Your task to perform on an android device: Go to network settings Image 0: 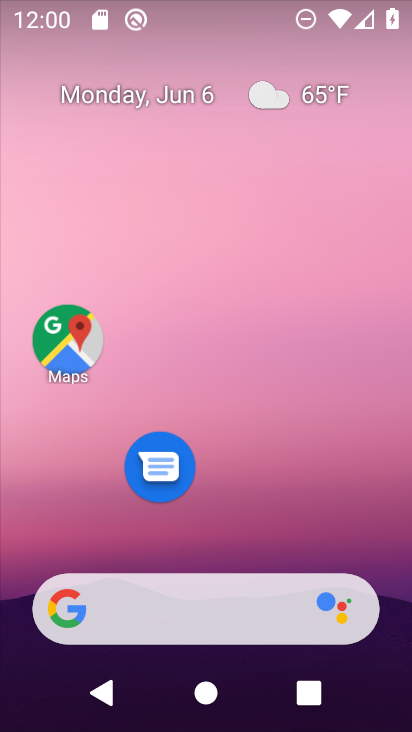
Step 0: press home button
Your task to perform on an android device: Go to network settings Image 1: 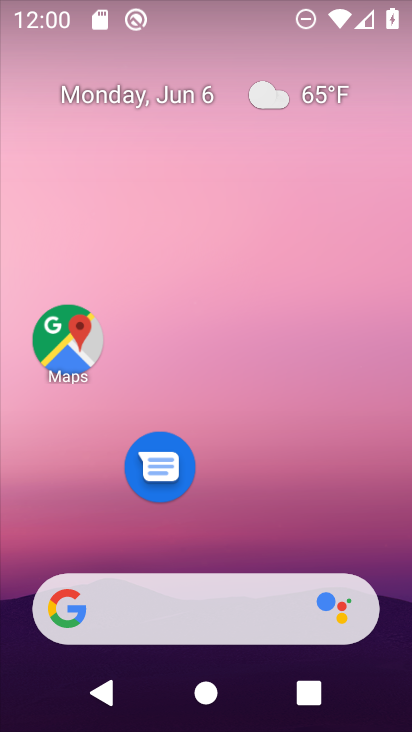
Step 1: drag from (379, 560) to (360, 49)
Your task to perform on an android device: Go to network settings Image 2: 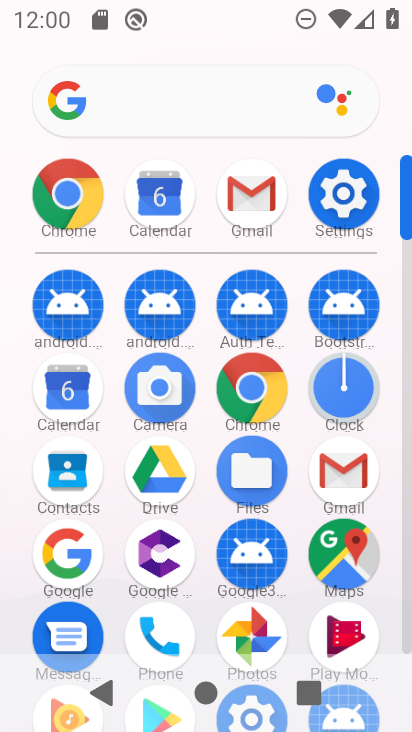
Step 2: drag from (184, 513) to (194, 367)
Your task to perform on an android device: Go to network settings Image 3: 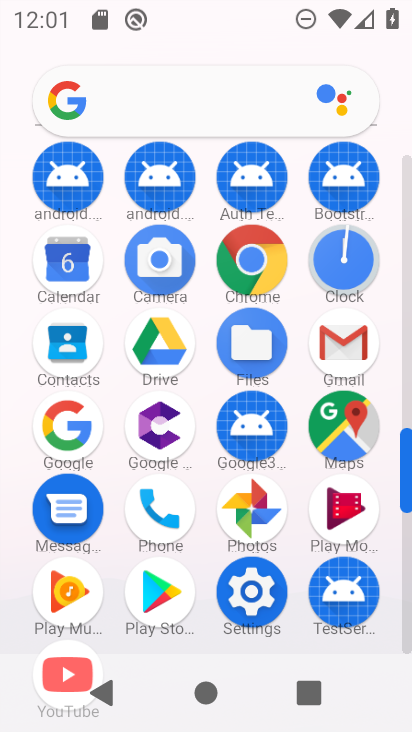
Step 3: click (250, 590)
Your task to perform on an android device: Go to network settings Image 4: 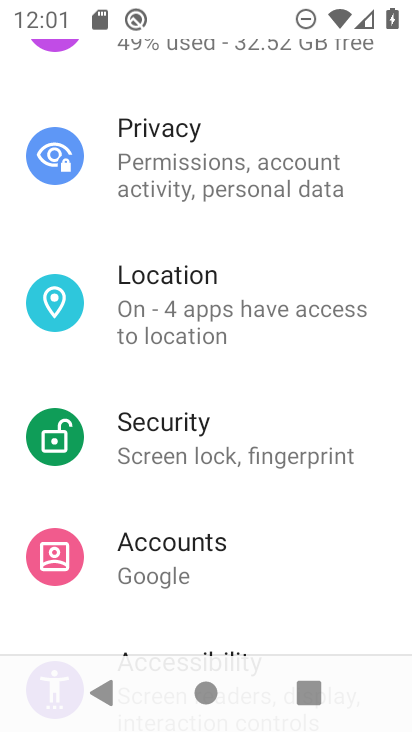
Step 4: drag from (311, 136) to (255, 718)
Your task to perform on an android device: Go to network settings Image 5: 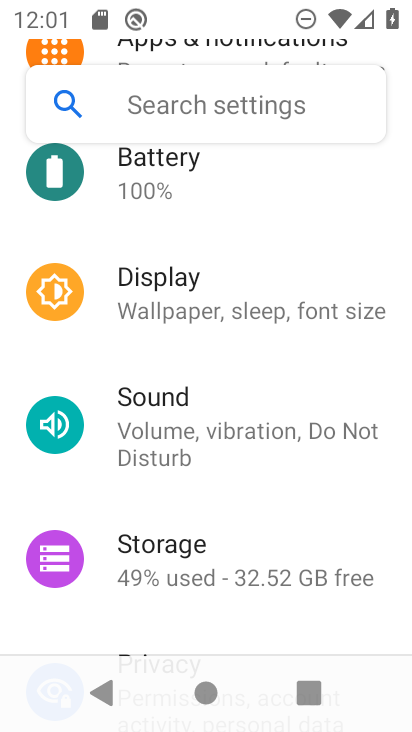
Step 5: drag from (371, 194) to (306, 530)
Your task to perform on an android device: Go to network settings Image 6: 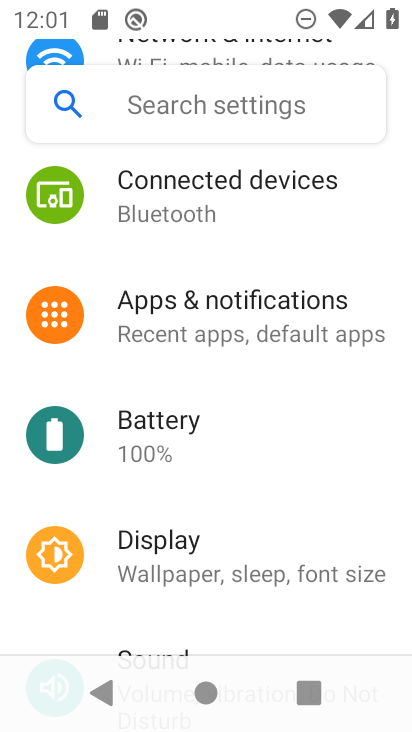
Step 6: drag from (313, 302) to (190, 694)
Your task to perform on an android device: Go to network settings Image 7: 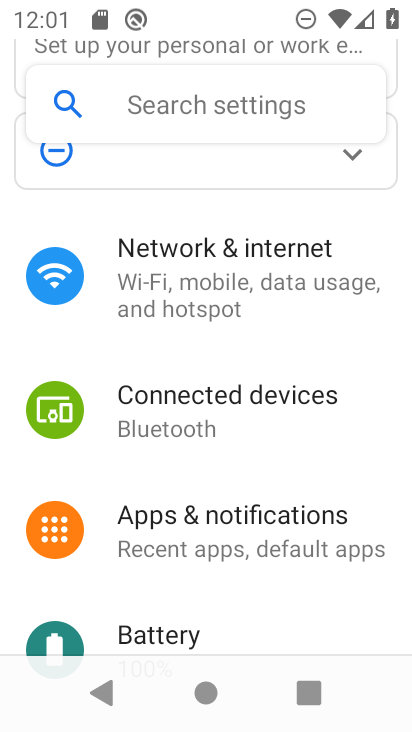
Step 7: click (265, 294)
Your task to perform on an android device: Go to network settings Image 8: 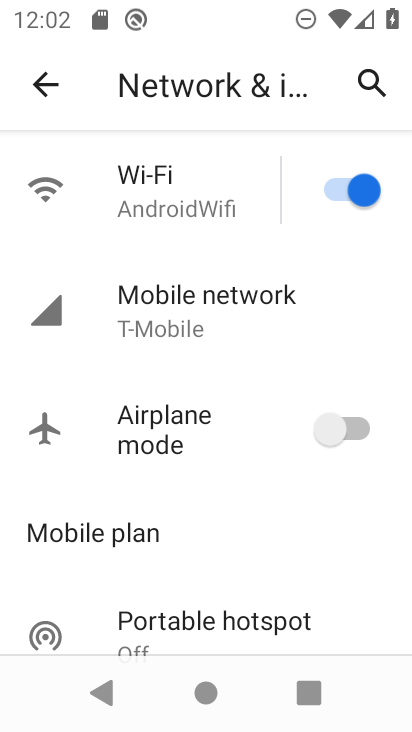
Step 8: task complete